Your task to perform on an android device: Open Google Maps and go to "Timeline" Image 0: 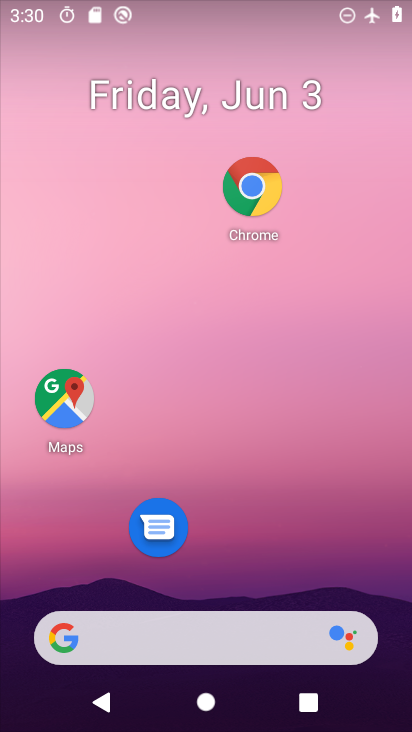
Step 0: click (58, 381)
Your task to perform on an android device: Open Google Maps and go to "Timeline" Image 1: 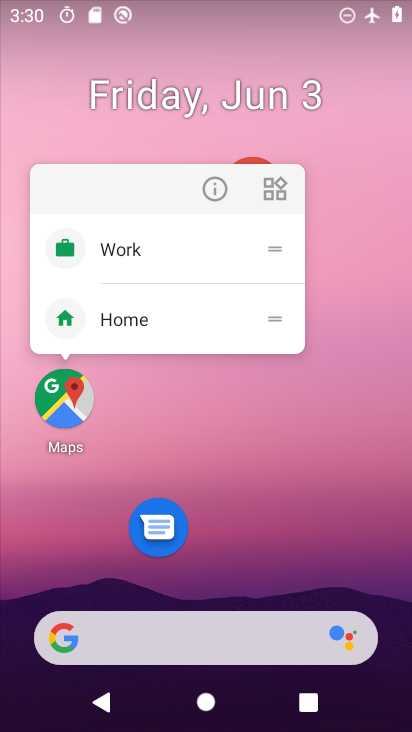
Step 1: click (60, 408)
Your task to perform on an android device: Open Google Maps and go to "Timeline" Image 2: 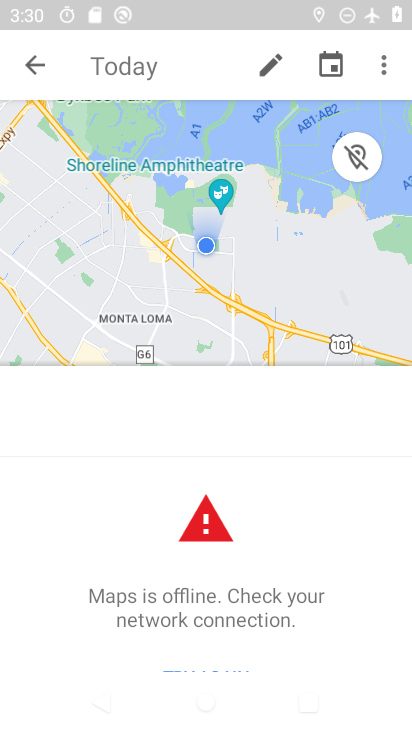
Step 2: task complete